Your task to perform on an android device: Go to ESPN.com Image 0: 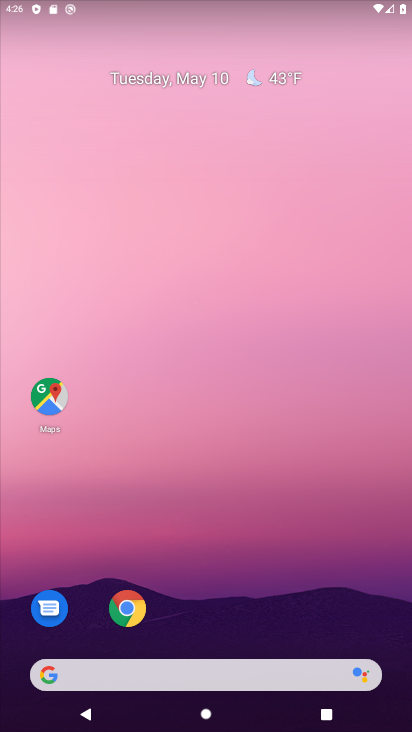
Step 0: click (123, 612)
Your task to perform on an android device: Go to ESPN.com Image 1: 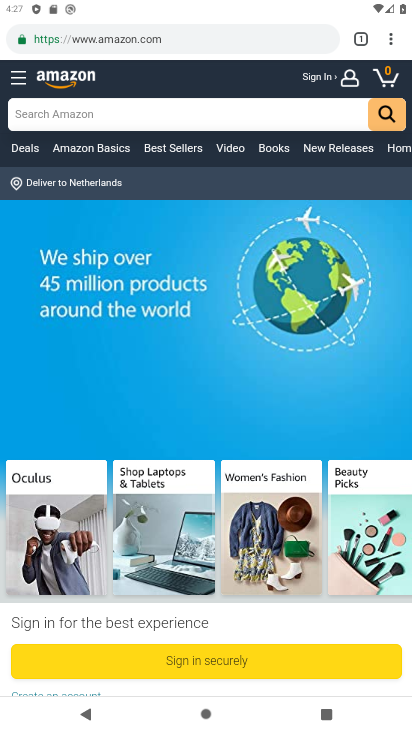
Step 1: click (365, 35)
Your task to perform on an android device: Go to ESPN.com Image 2: 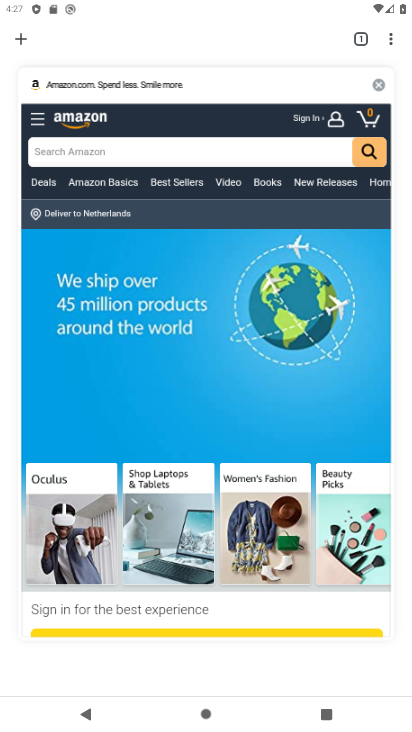
Step 2: click (17, 40)
Your task to perform on an android device: Go to ESPN.com Image 3: 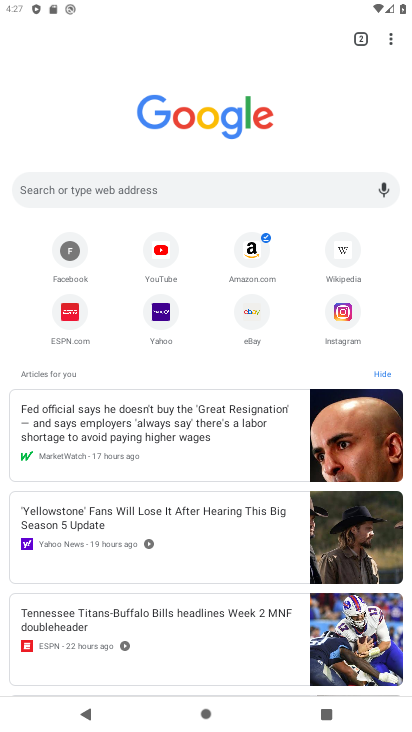
Step 3: click (67, 324)
Your task to perform on an android device: Go to ESPN.com Image 4: 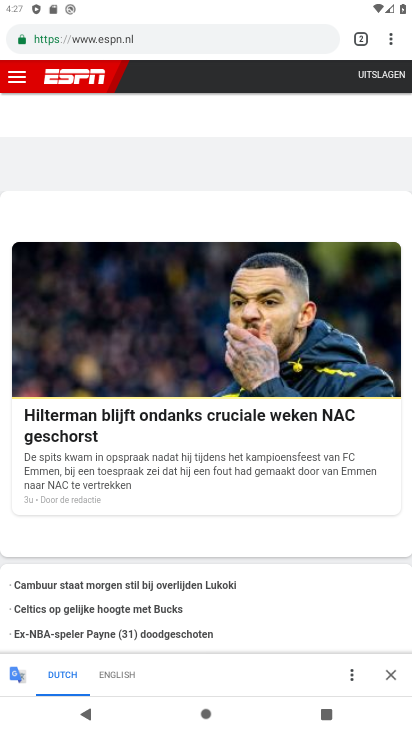
Step 4: task complete